Your task to perform on an android device: Clear the shopping cart on amazon.com. Image 0: 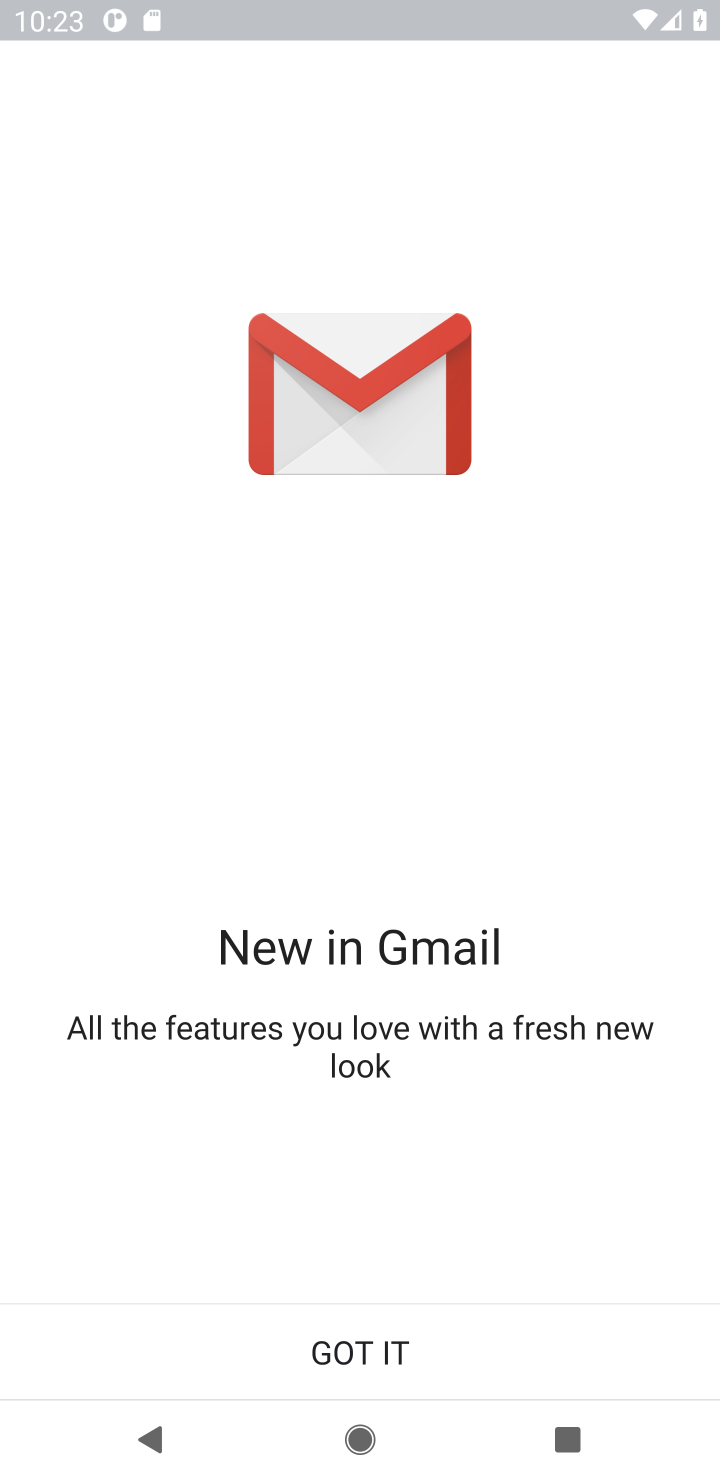
Step 0: press home button
Your task to perform on an android device: Clear the shopping cart on amazon.com. Image 1: 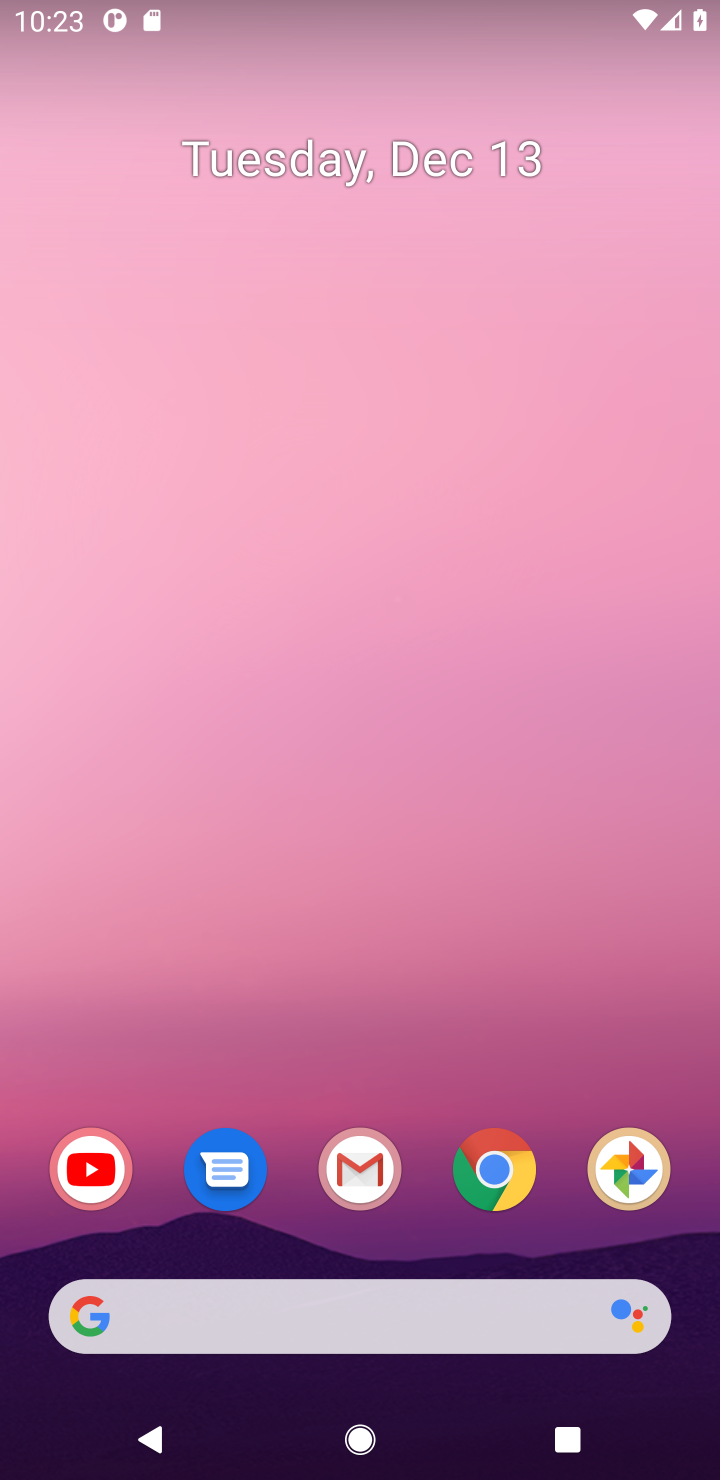
Step 1: click (497, 1200)
Your task to perform on an android device: Clear the shopping cart on amazon.com. Image 2: 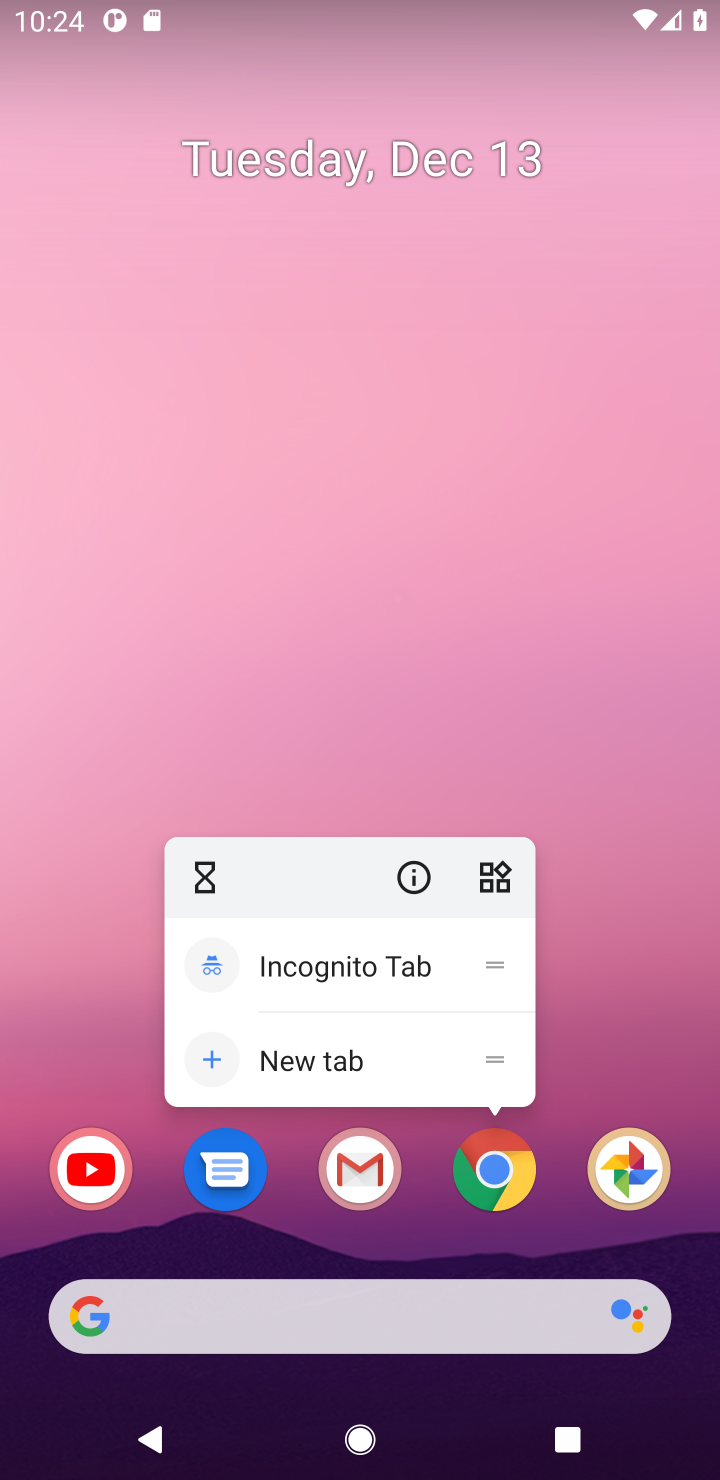
Step 2: click (279, 748)
Your task to perform on an android device: Clear the shopping cart on amazon.com. Image 3: 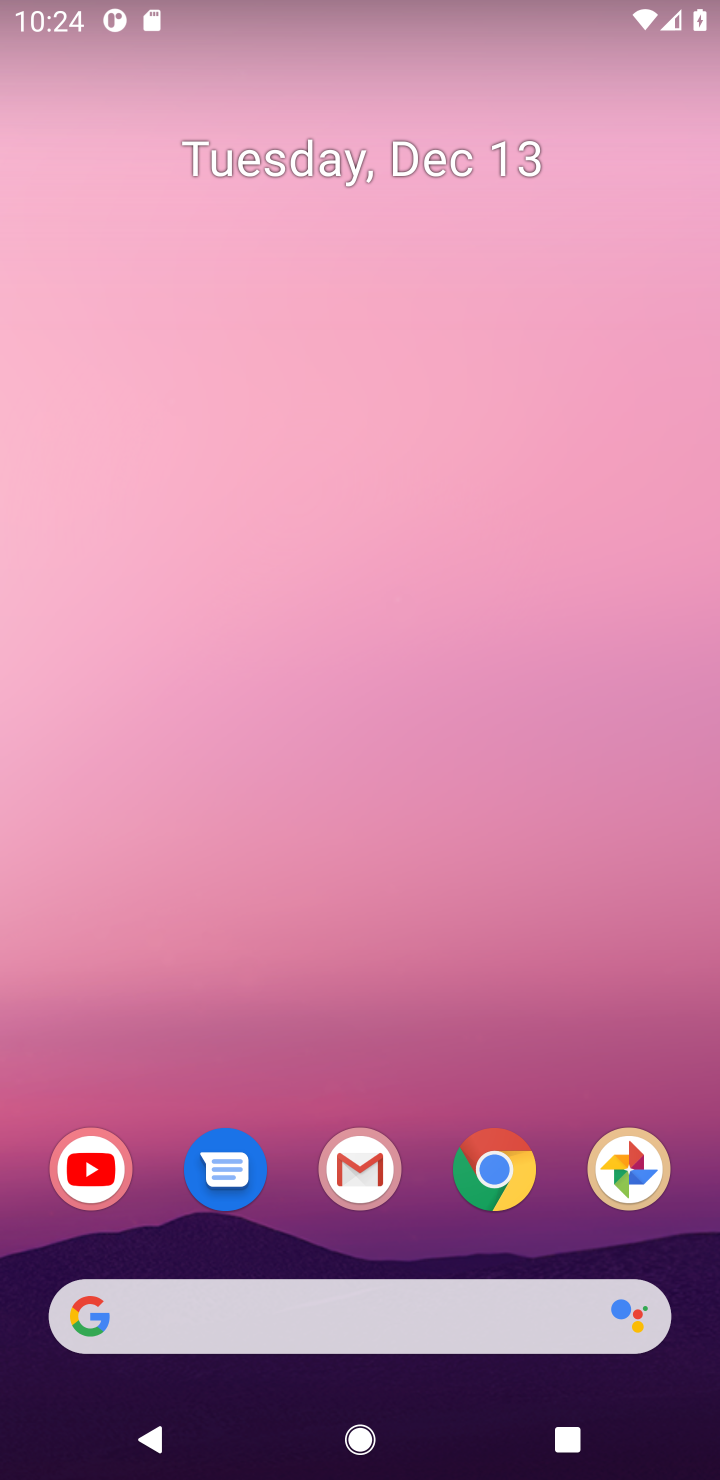
Step 3: click (481, 1323)
Your task to perform on an android device: Clear the shopping cart on amazon.com. Image 4: 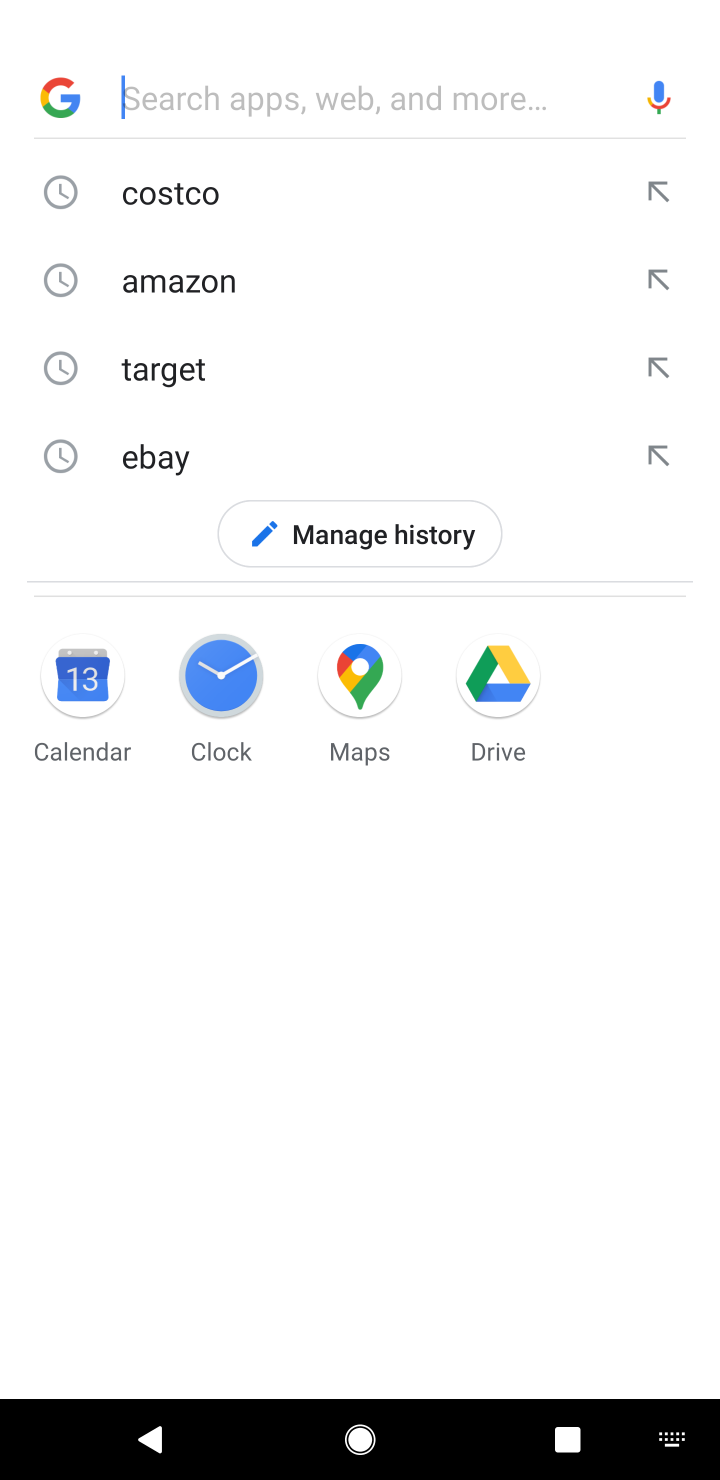
Step 4: type "amazon"
Your task to perform on an android device: Clear the shopping cart on amazon.com. Image 5: 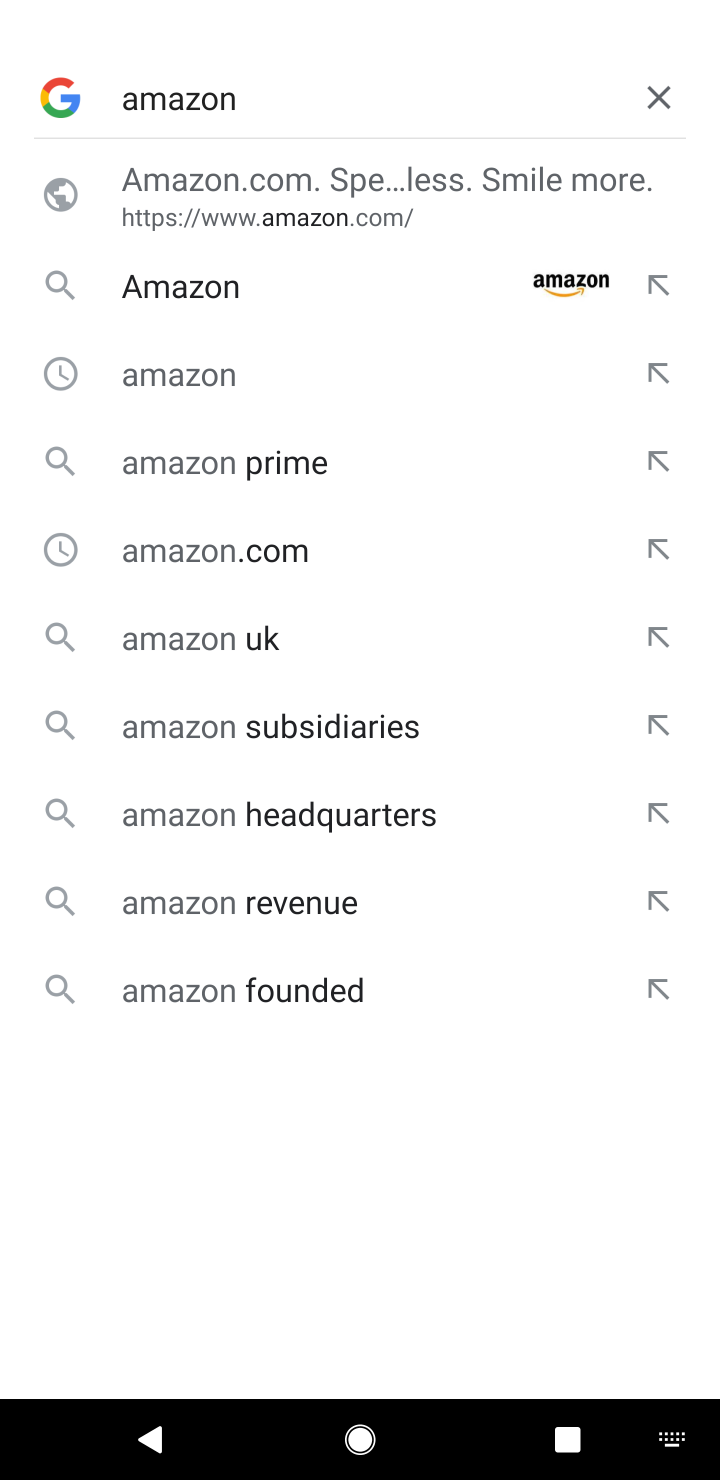
Step 5: click (250, 296)
Your task to perform on an android device: Clear the shopping cart on amazon.com. Image 6: 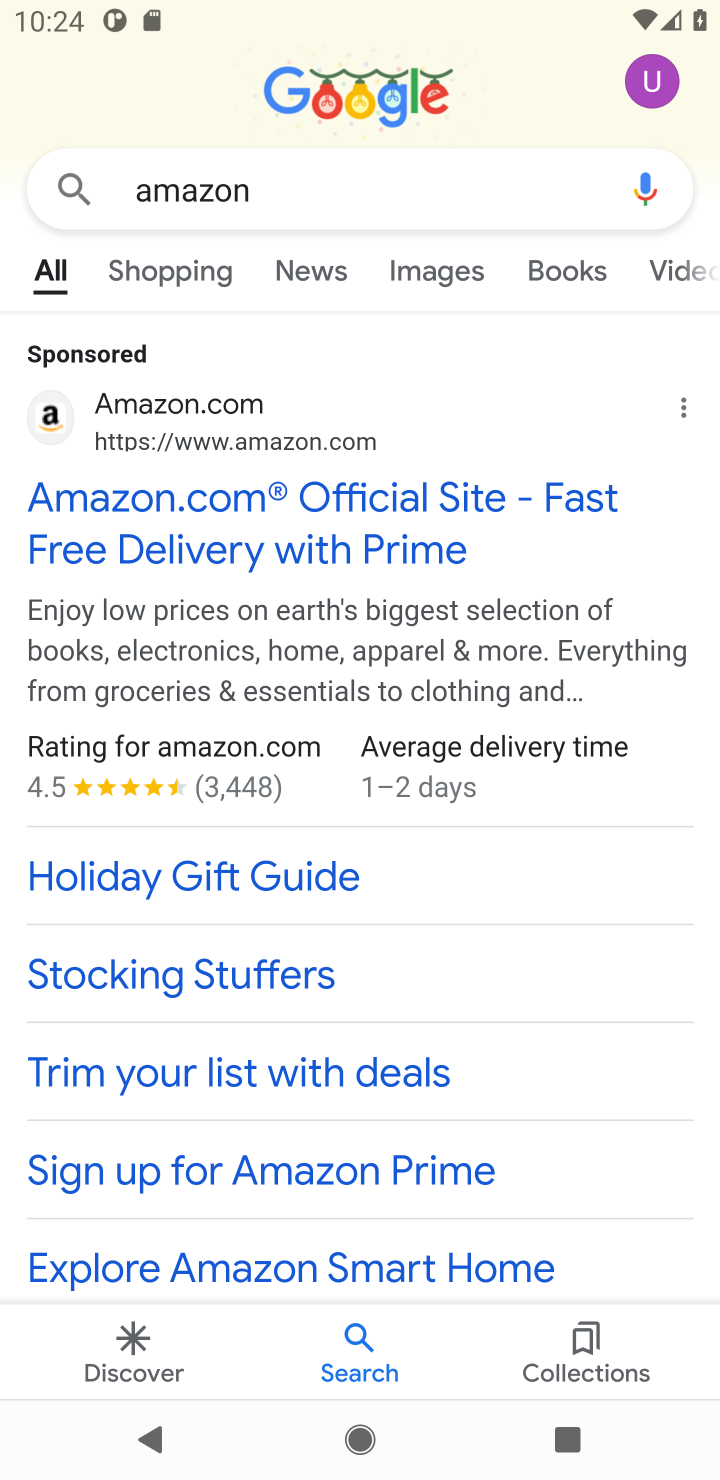
Step 6: click (148, 506)
Your task to perform on an android device: Clear the shopping cart on amazon.com. Image 7: 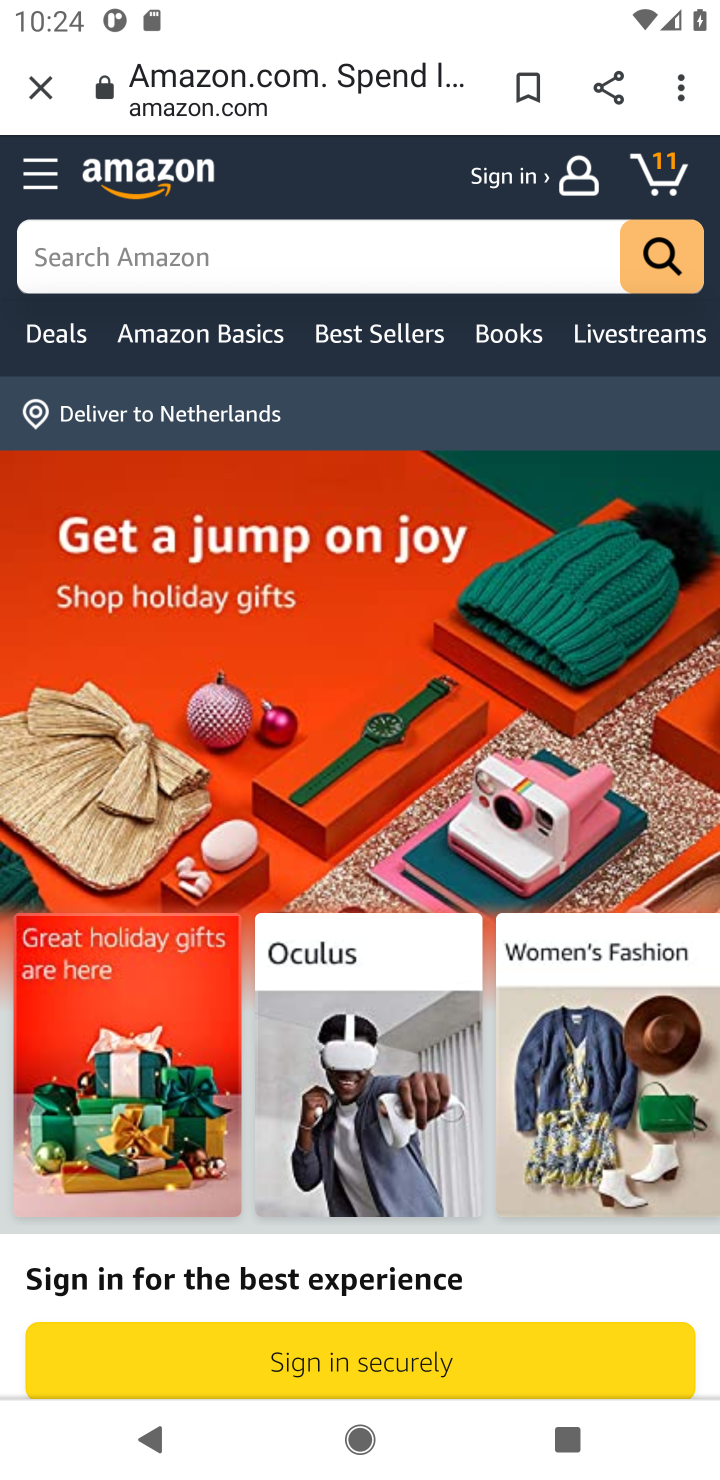
Step 7: click (268, 278)
Your task to perform on an android device: Clear the shopping cart on amazon.com. Image 8: 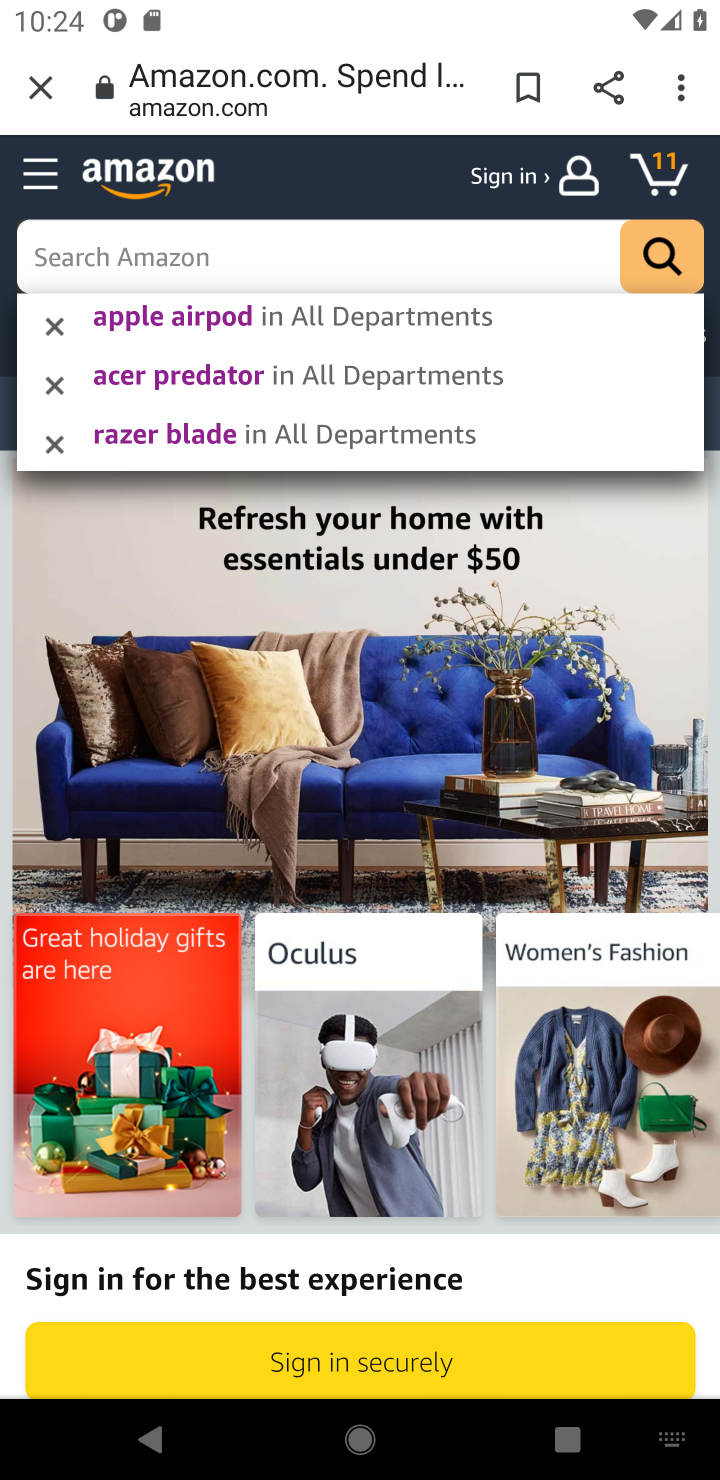
Step 8: click (655, 159)
Your task to perform on an android device: Clear the shopping cart on amazon.com. Image 9: 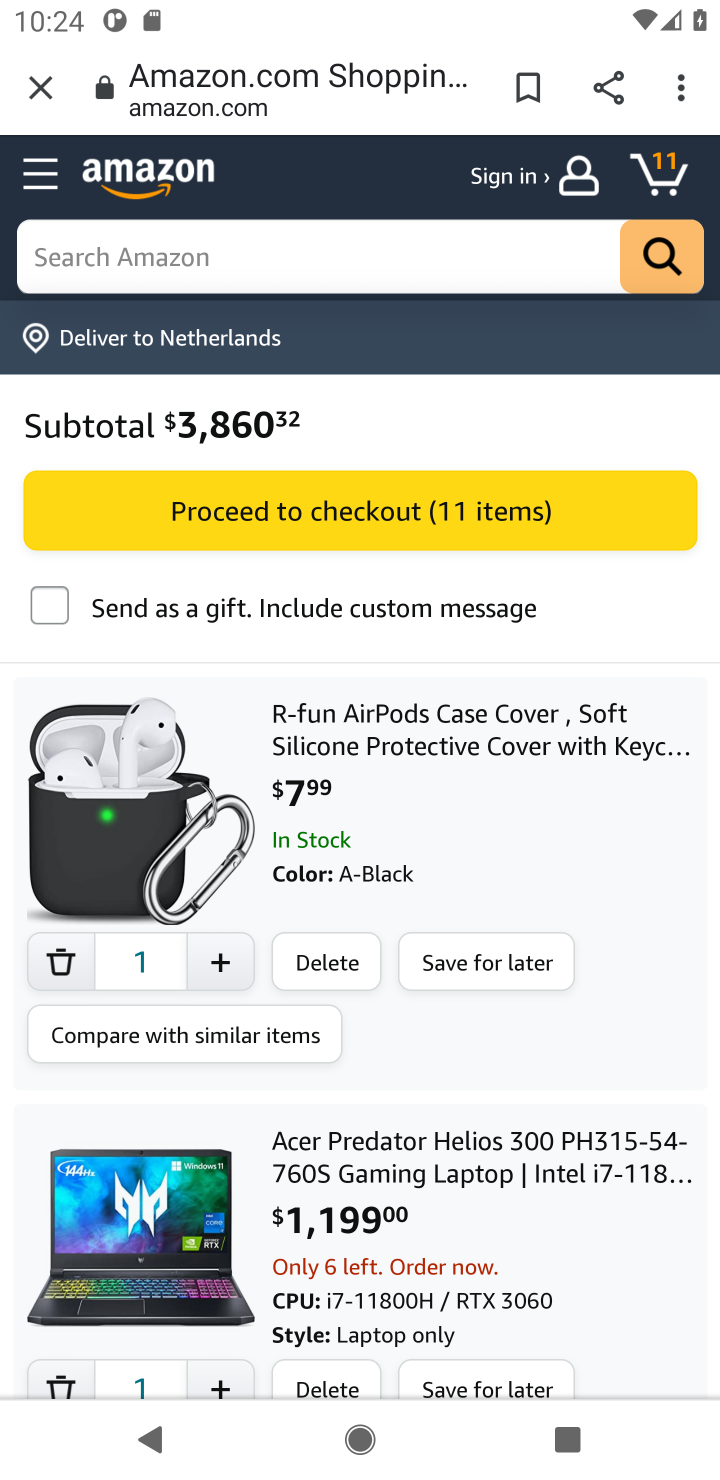
Step 9: click (340, 960)
Your task to perform on an android device: Clear the shopping cart on amazon.com. Image 10: 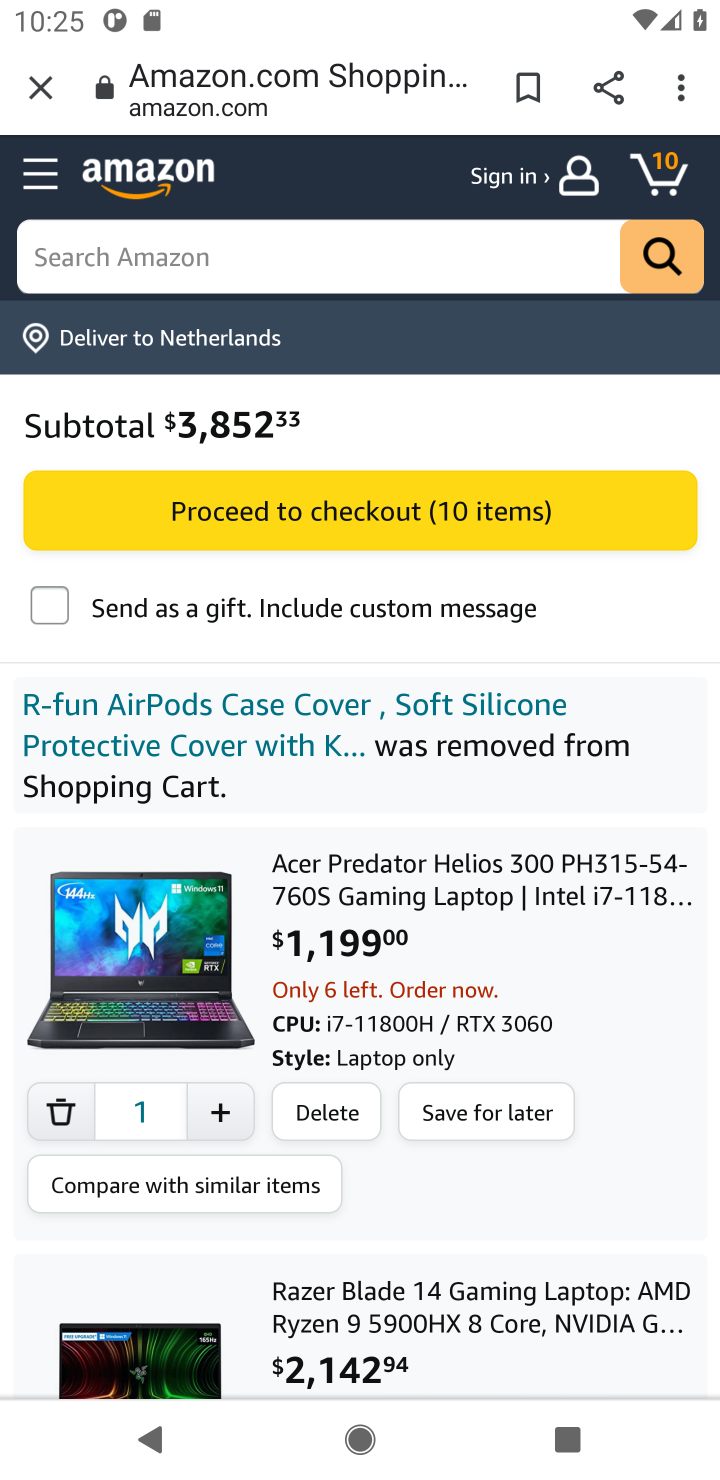
Step 10: click (310, 1122)
Your task to perform on an android device: Clear the shopping cart on amazon.com. Image 11: 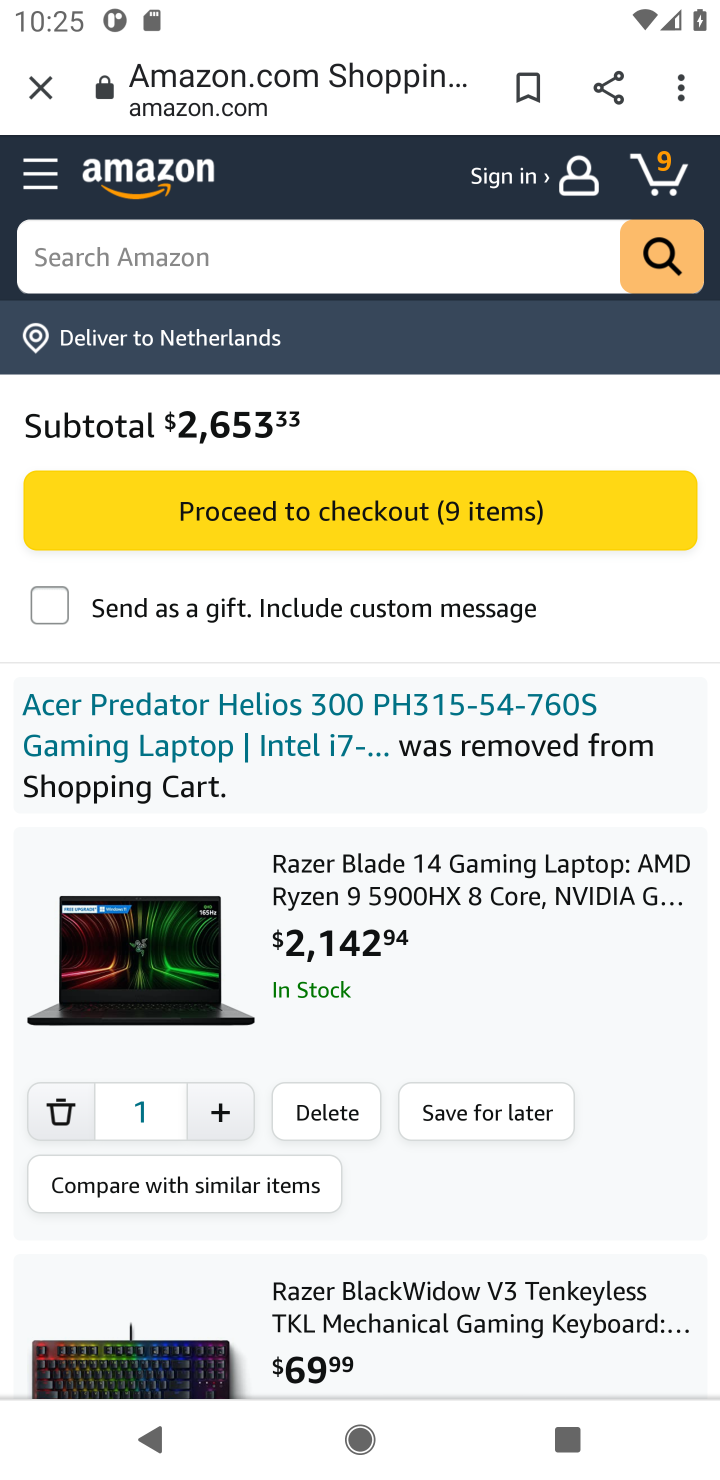
Step 11: click (320, 1105)
Your task to perform on an android device: Clear the shopping cart on amazon.com. Image 12: 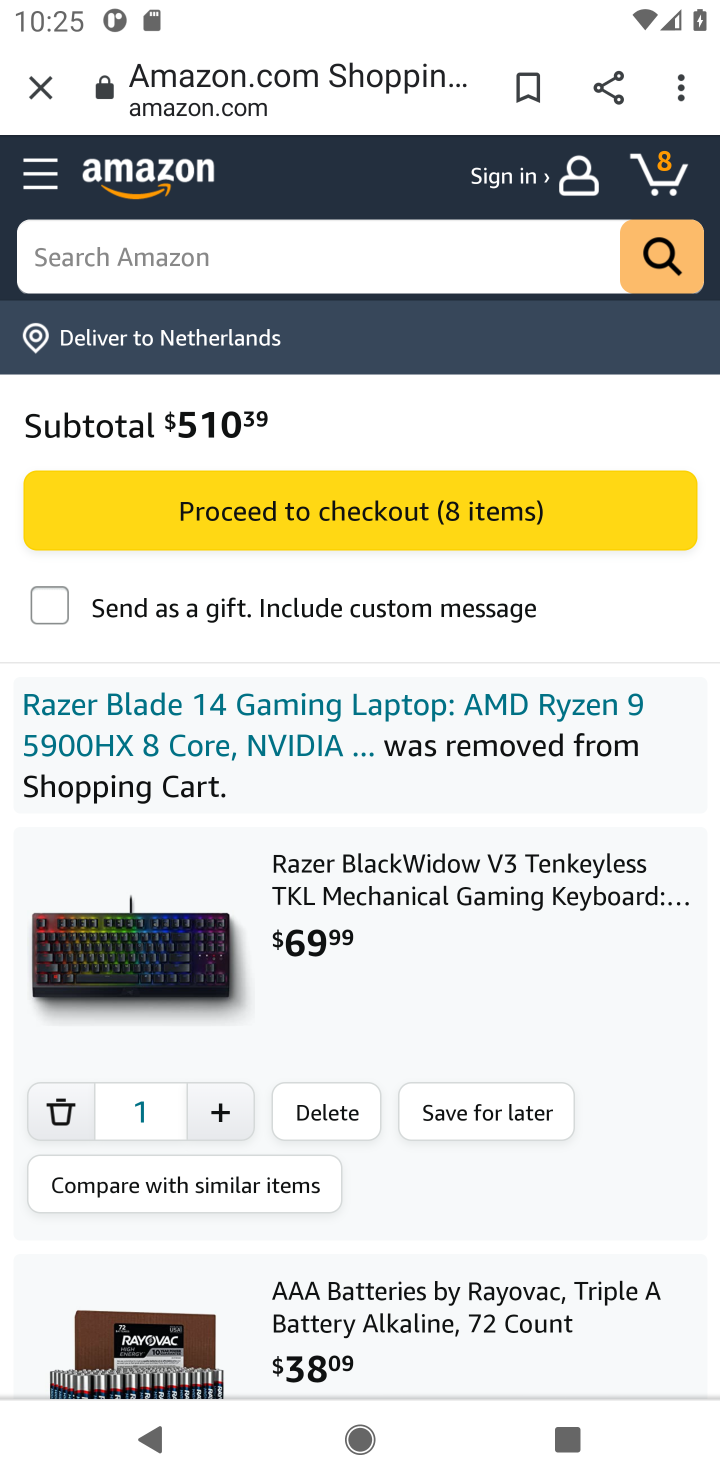
Step 12: click (320, 1105)
Your task to perform on an android device: Clear the shopping cart on amazon.com. Image 13: 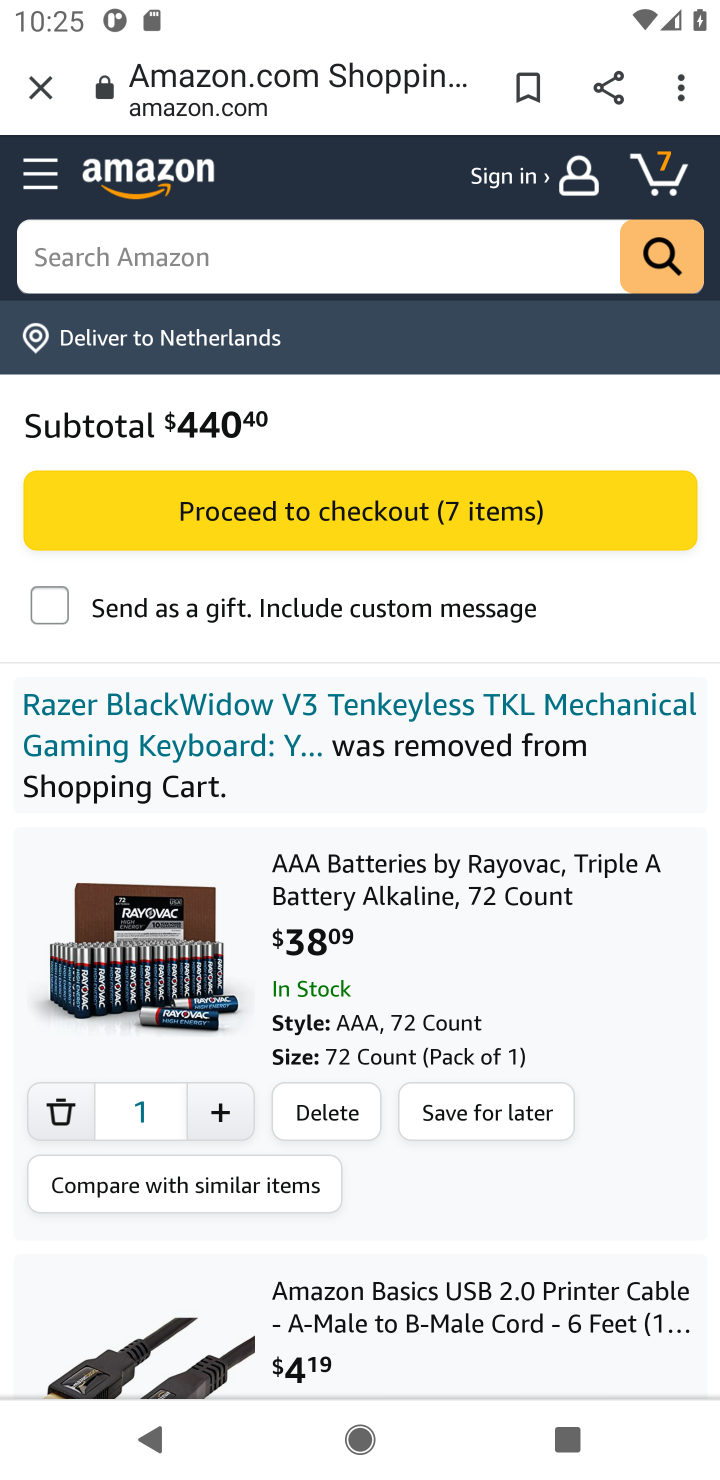
Step 13: click (320, 1105)
Your task to perform on an android device: Clear the shopping cart on amazon.com. Image 14: 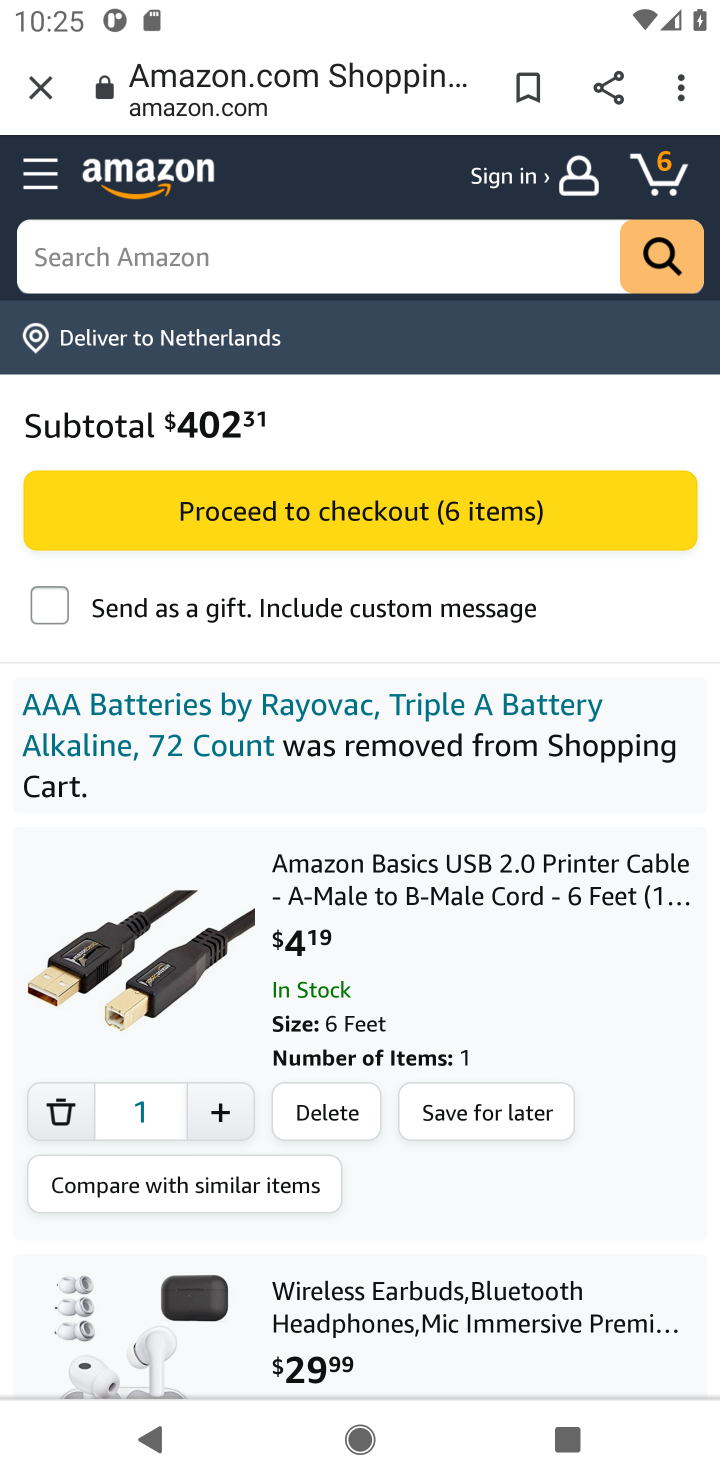
Step 14: click (320, 1105)
Your task to perform on an android device: Clear the shopping cart on amazon.com. Image 15: 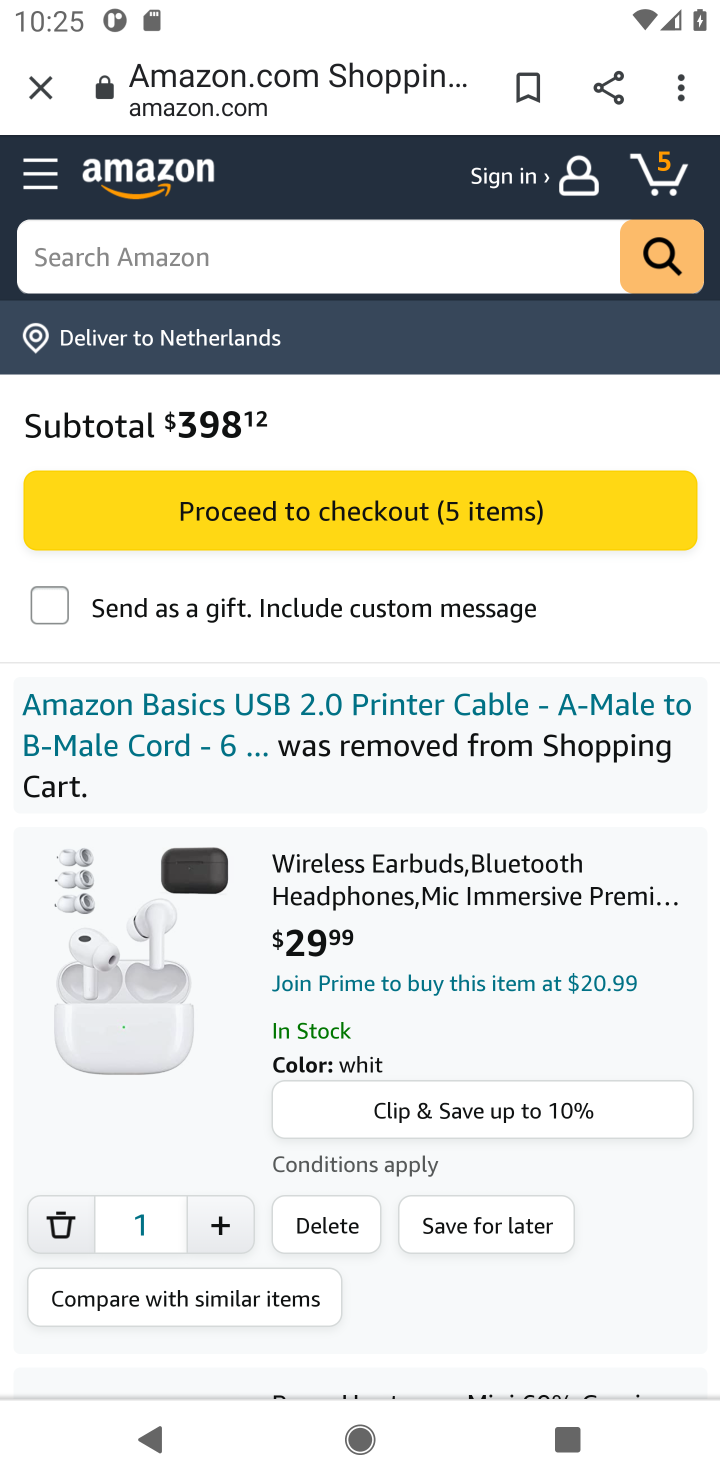
Step 15: click (295, 1244)
Your task to perform on an android device: Clear the shopping cart on amazon.com. Image 16: 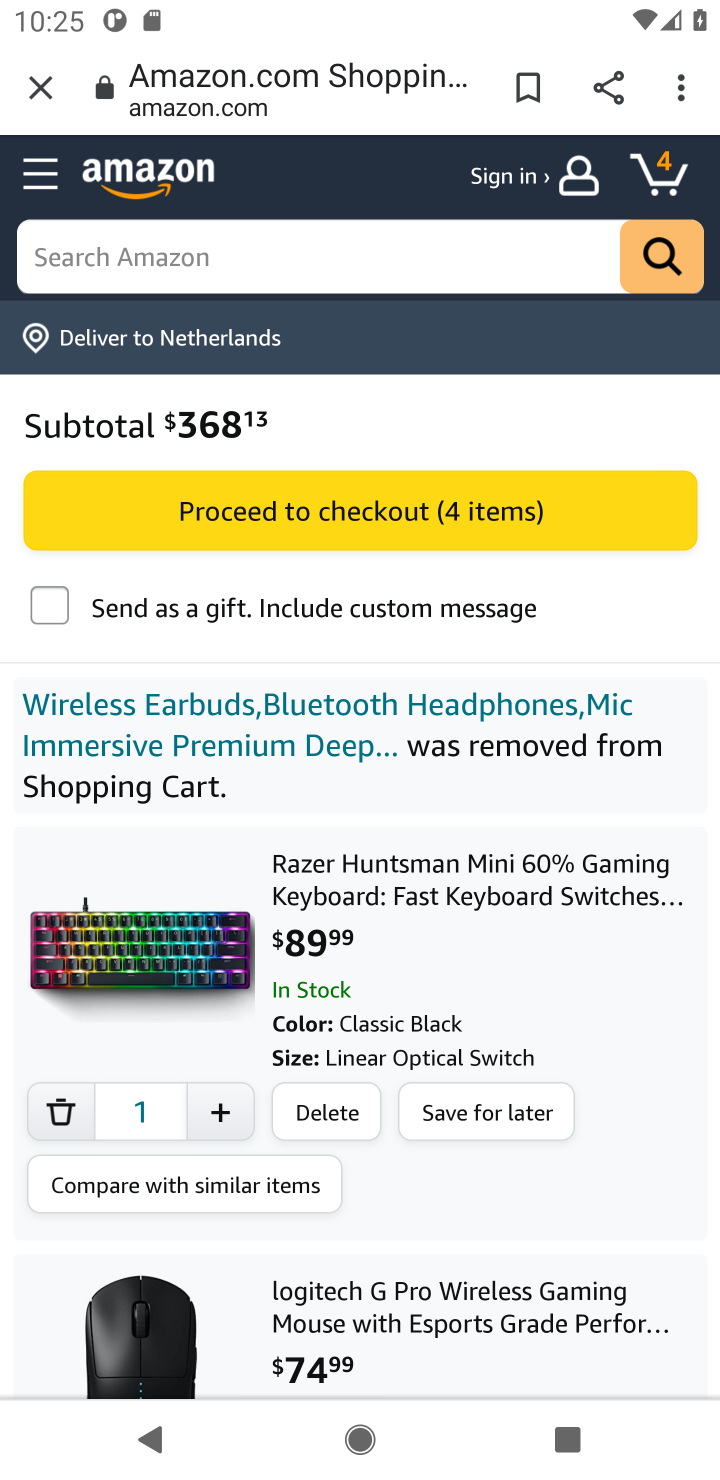
Step 16: click (348, 1101)
Your task to perform on an android device: Clear the shopping cart on amazon.com. Image 17: 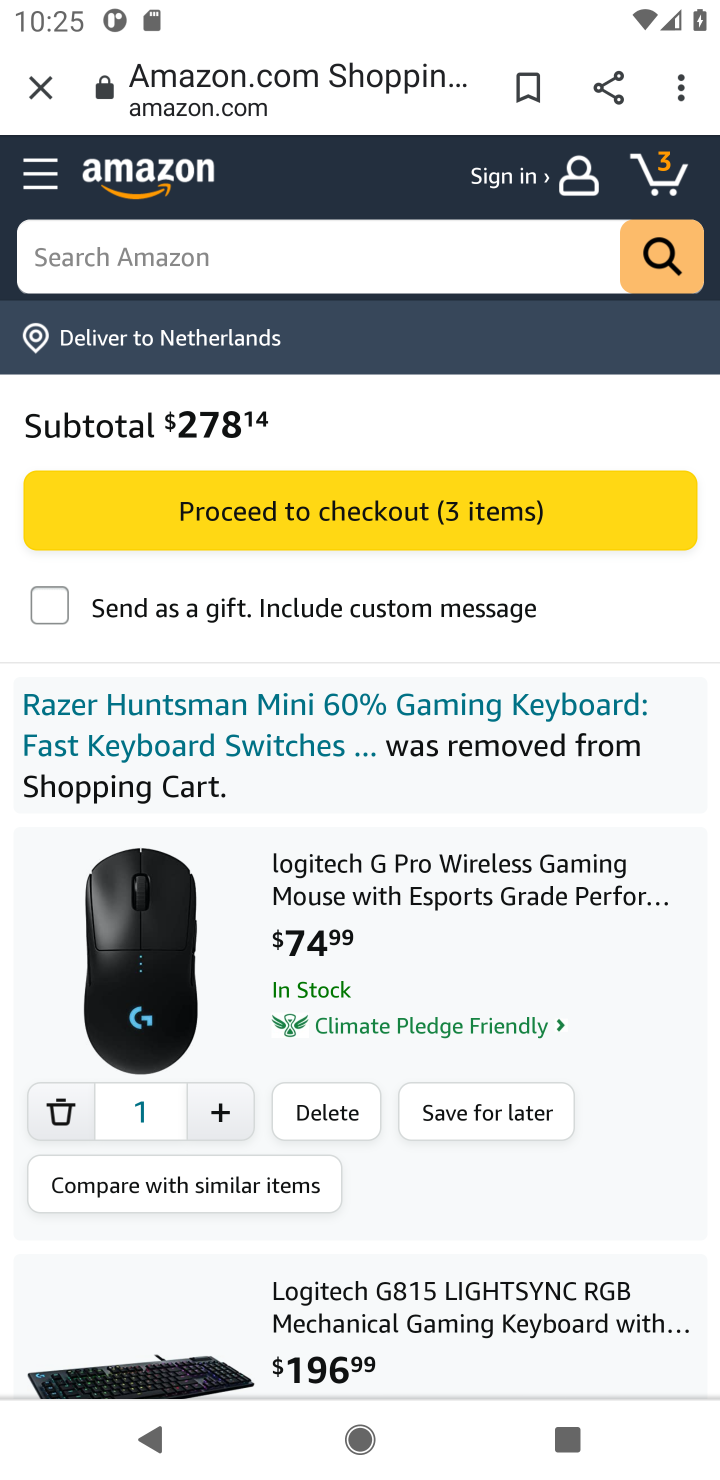
Step 17: click (348, 1101)
Your task to perform on an android device: Clear the shopping cart on amazon.com. Image 18: 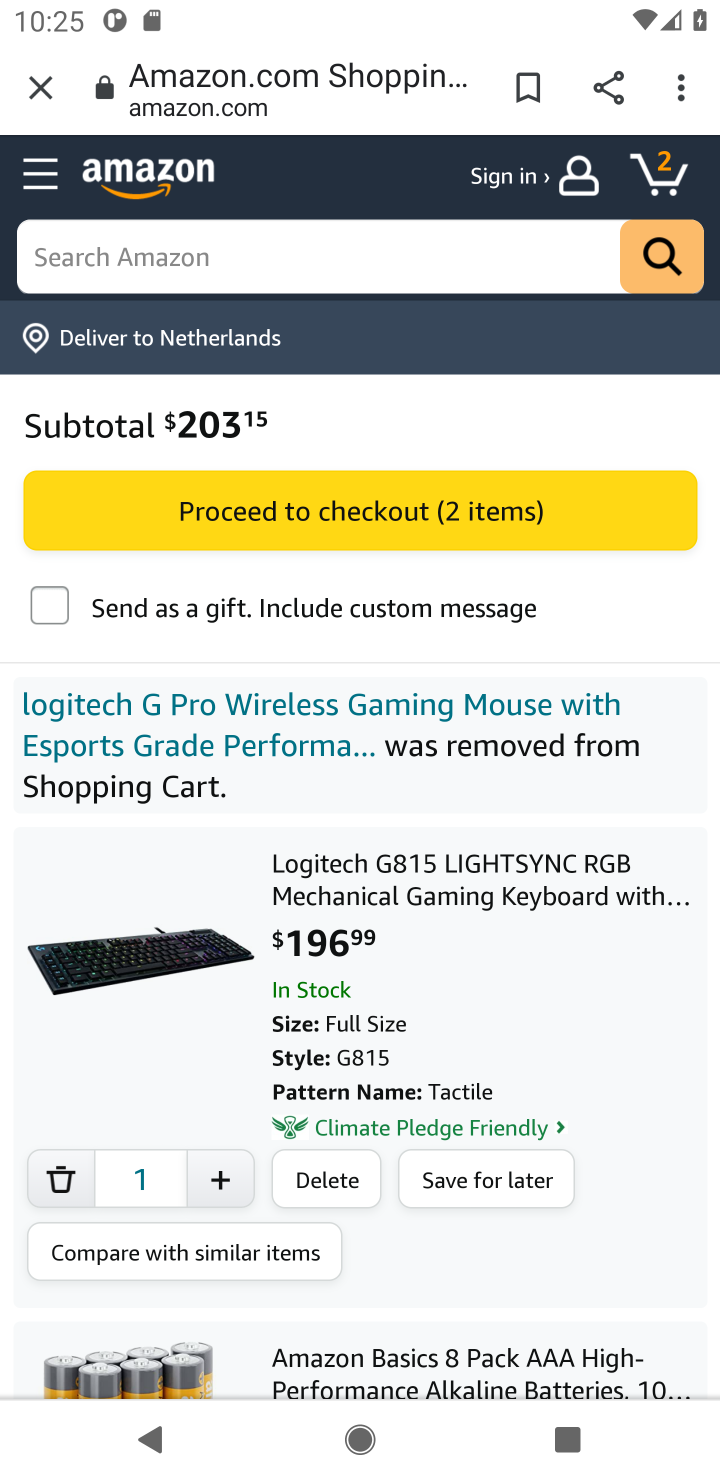
Step 18: click (326, 1163)
Your task to perform on an android device: Clear the shopping cart on amazon.com. Image 19: 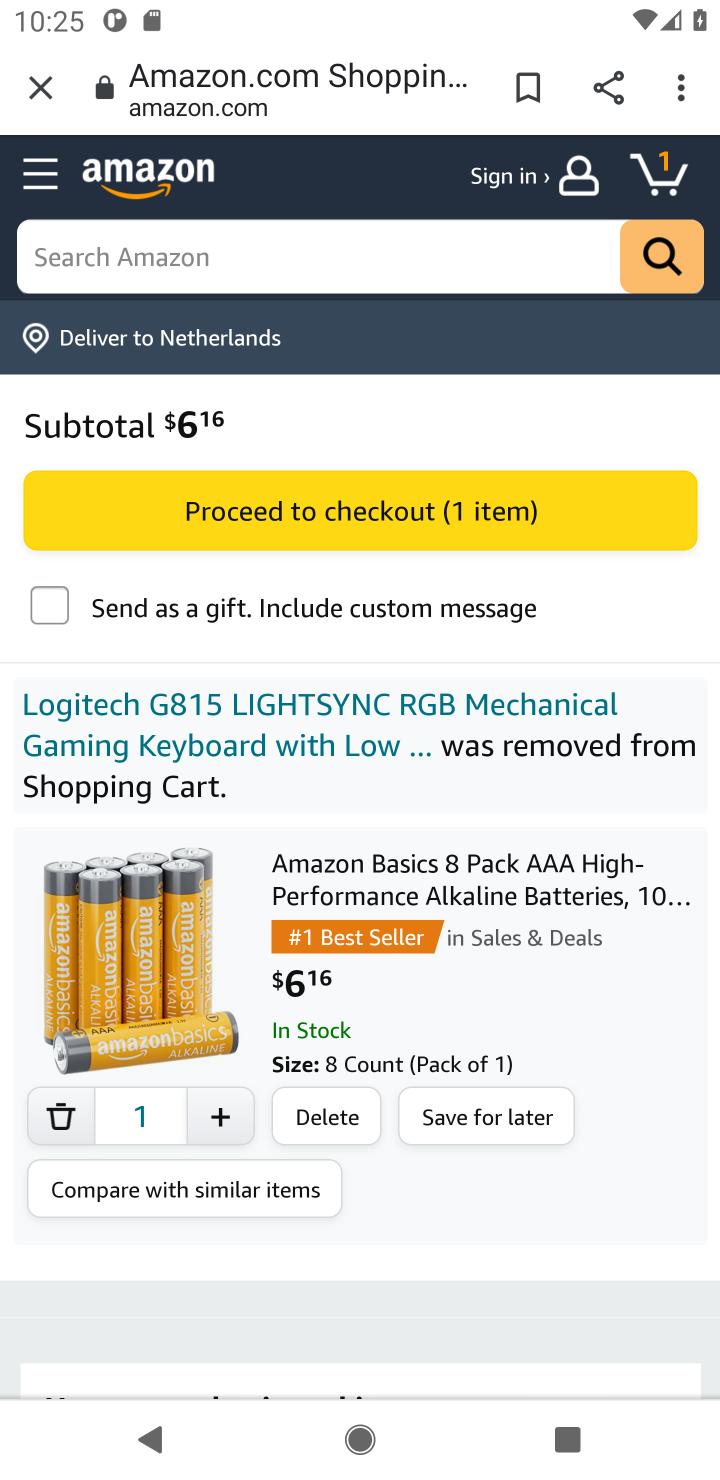
Step 19: click (326, 1123)
Your task to perform on an android device: Clear the shopping cart on amazon.com. Image 20: 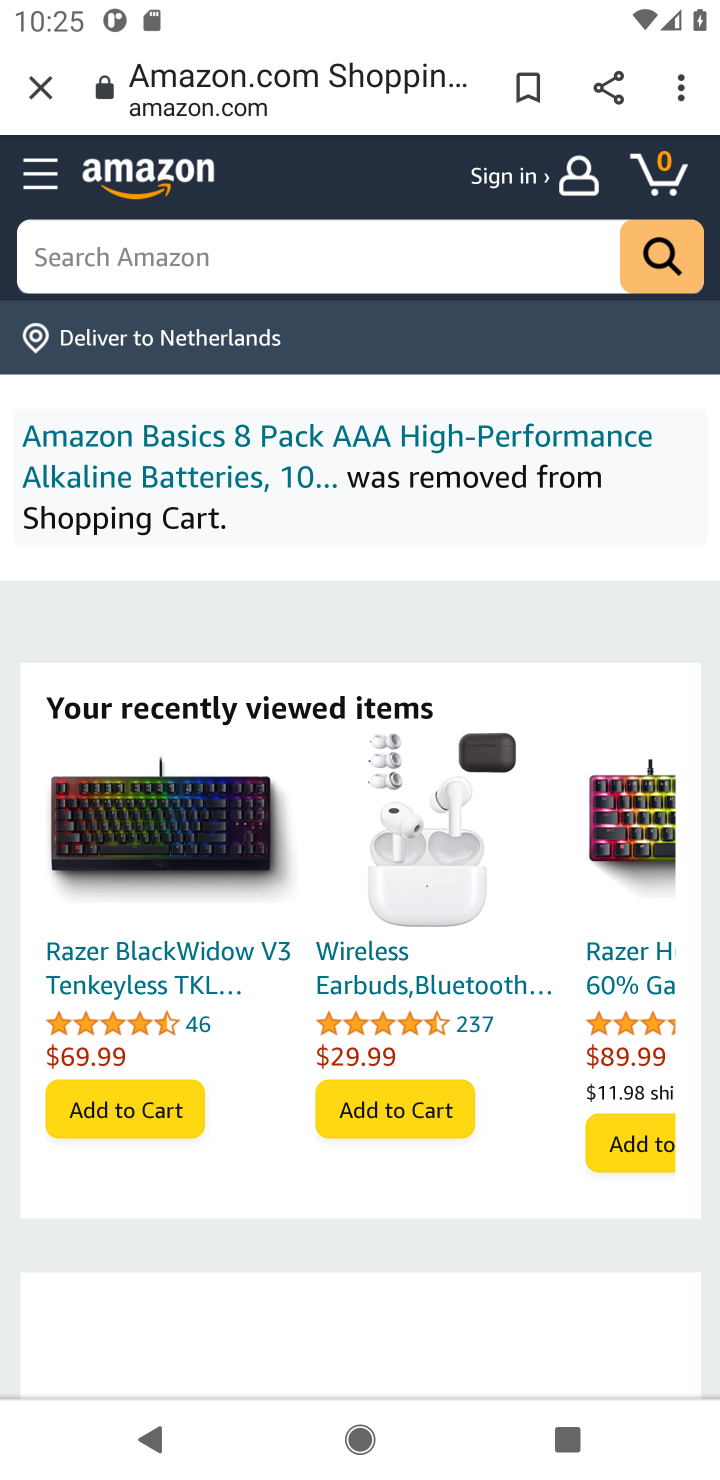
Step 20: task complete